Your task to perform on an android device: What's the weather going to be this weekend? Image 0: 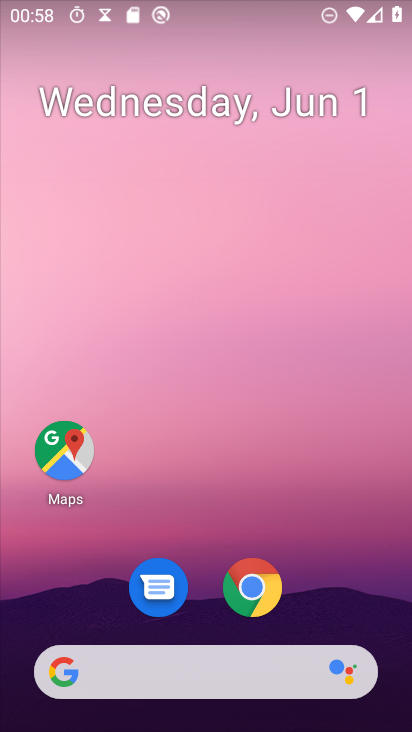
Step 0: click (205, 675)
Your task to perform on an android device: What's the weather going to be this weekend? Image 1: 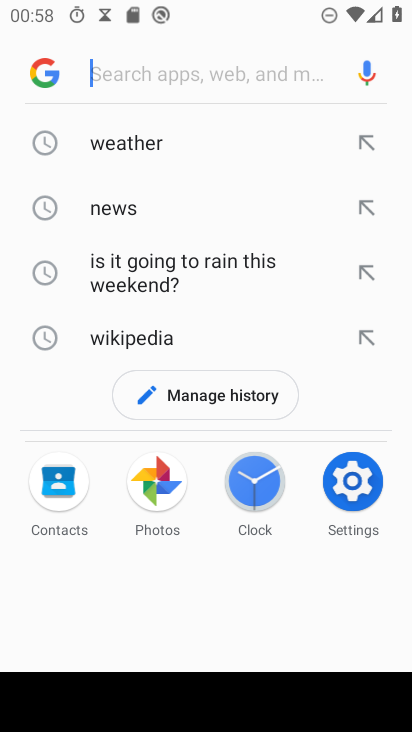
Step 1: type "what's the weather going to be this weekend"
Your task to perform on an android device: What's the weather going to be this weekend? Image 2: 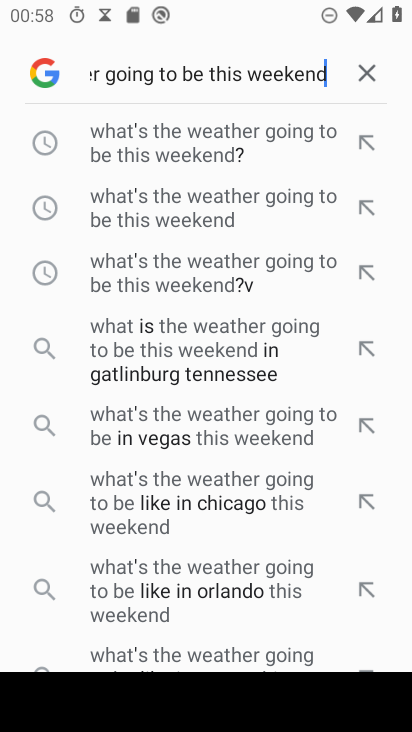
Step 2: click (233, 132)
Your task to perform on an android device: What's the weather going to be this weekend? Image 3: 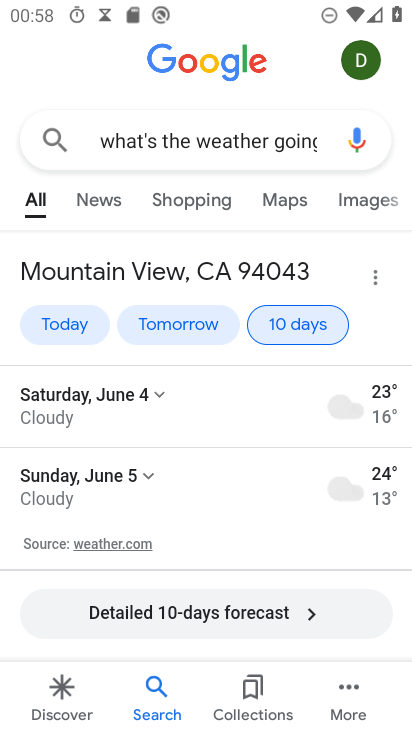
Step 3: task complete